Your task to perform on an android device: refresh tabs in the chrome app Image 0: 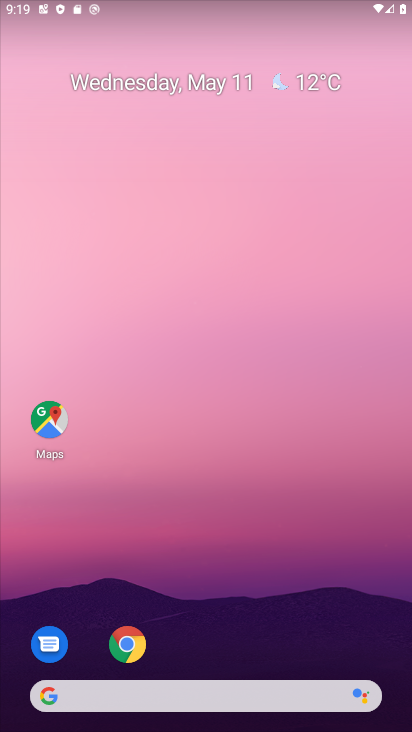
Step 0: click (138, 653)
Your task to perform on an android device: refresh tabs in the chrome app Image 1: 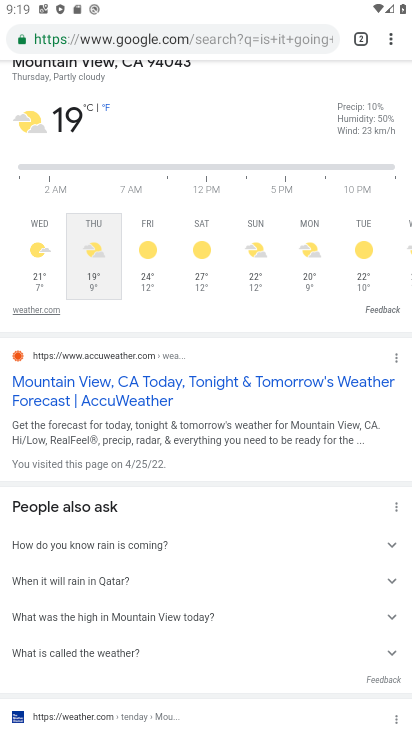
Step 1: click (390, 35)
Your task to perform on an android device: refresh tabs in the chrome app Image 2: 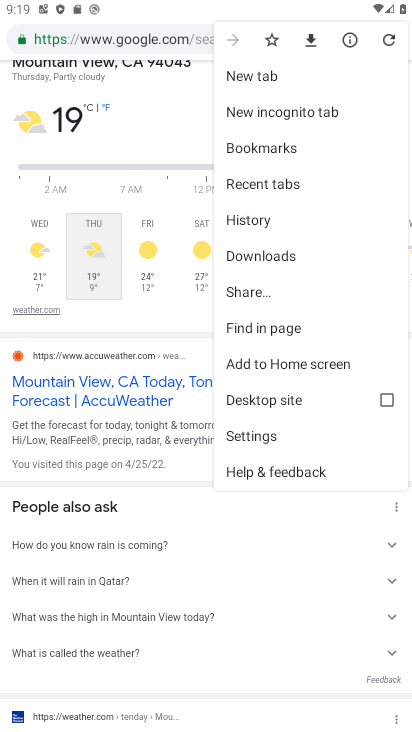
Step 2: click (392, 39)
Your task to perform on an android device: refresh tabs in the chrome app Image 3: 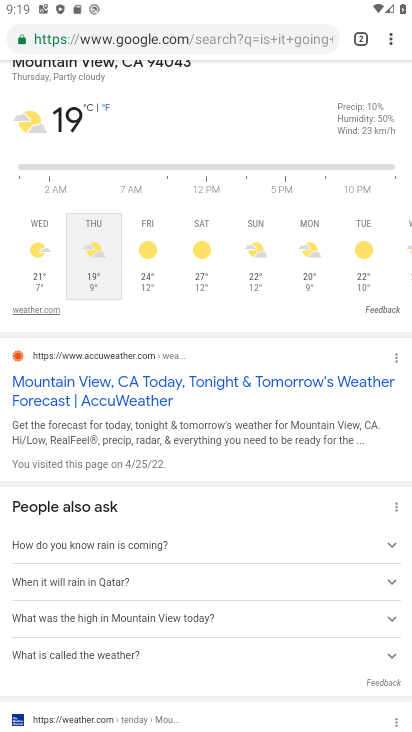
Step 3: task complete